Your task to perform on an android device: allow cookies in the chrome app Image 0: 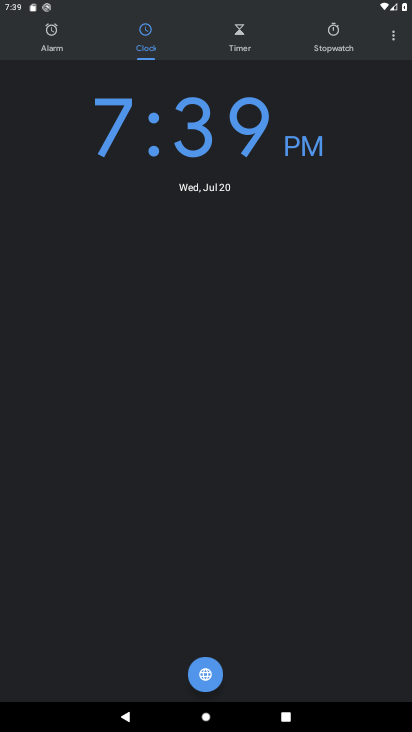
Step 0: press home button
Your task to perform on an android device: allow cookies in the chrome app Image 1: 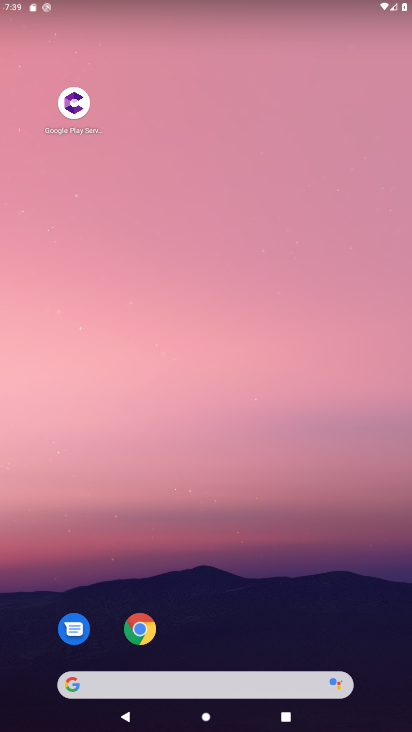
Step 1: click (147, 638)
Your task to perform on an android device: allow cookies in the chrome app Image 2: 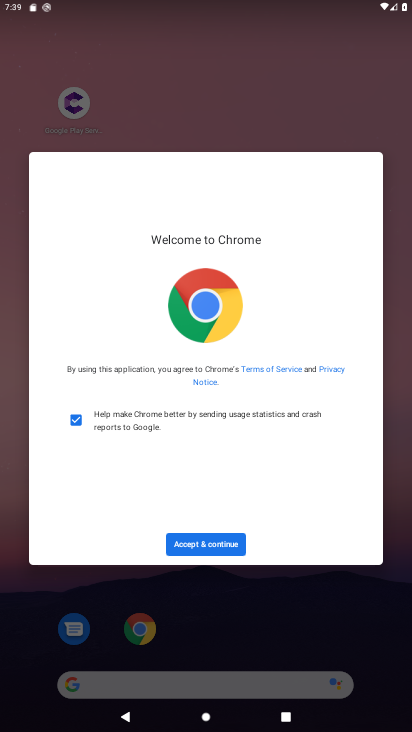
Step 2: click (222, 545)
Your task to perform on an android device: allow cookies in the chrome app Image 3: 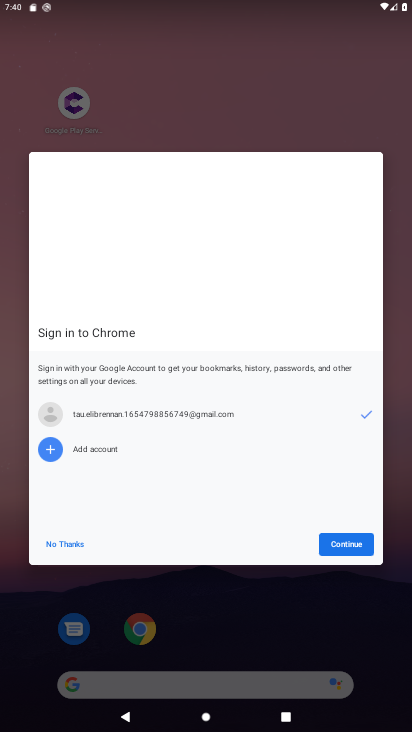
Step 3: click (327, 548)
Your task to perform on an android device: allow cookies in the chrome app Image 4: 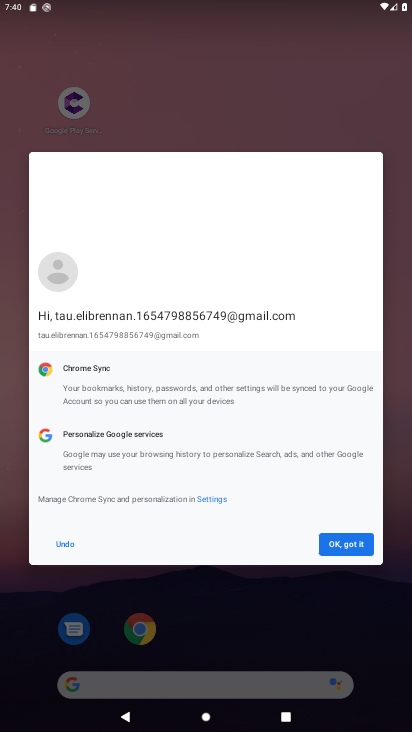
Step 4: click (351, 542)
Your task to perform on an android device: allow cookies in the chrome app Image 5: 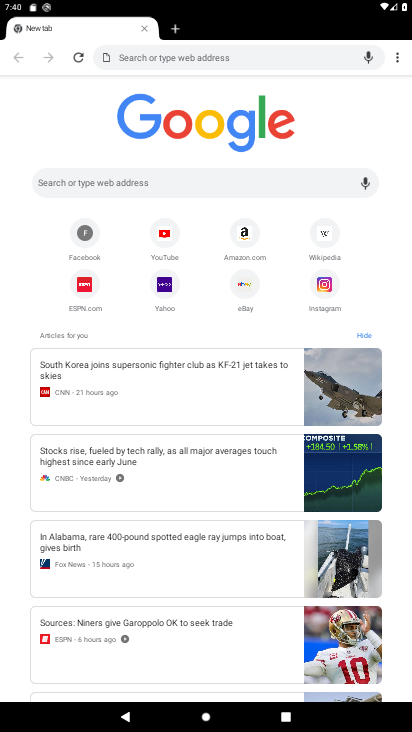
Step 5: click (405, 56)
Your task to perform on an android device: allow cookies in the chrome app Image 6: 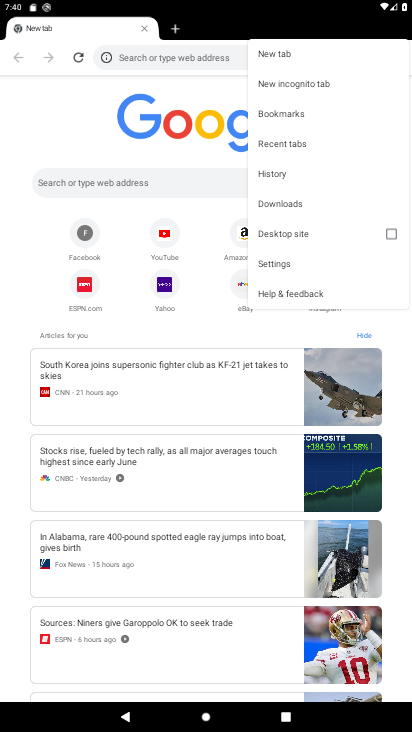
Step 6: click (288, 260)
Your task to perform on an android device: allow cookies in the chrome app Image 7: 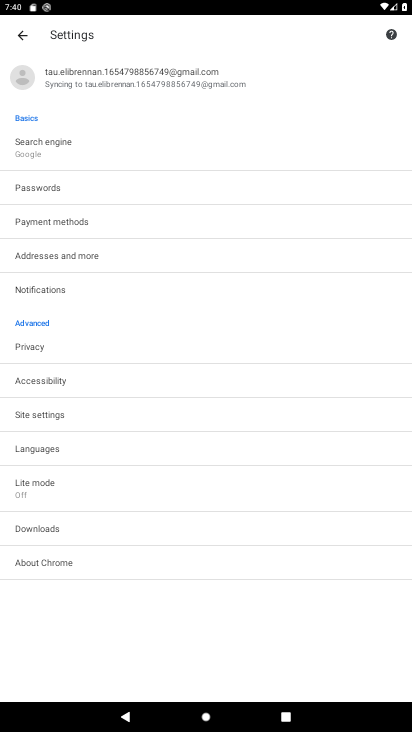
Step 7: click (60, 421)
Your task to perform on an android device: allow cookies in the chrome app Image 8: 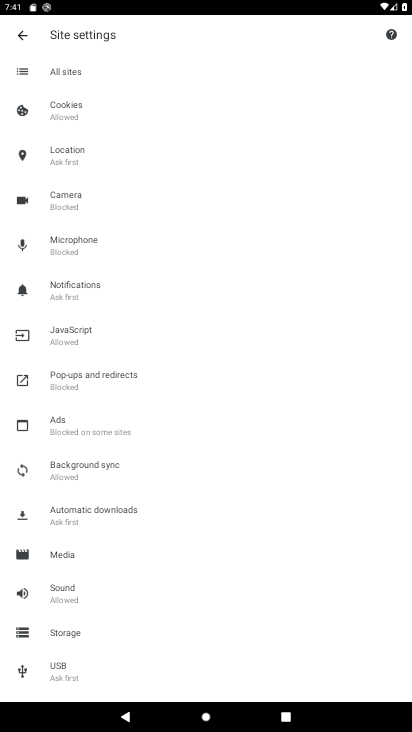
Step 8: click (95, 107)
Your task to perform on an android device: allow cookies in the chrome app Image 9: 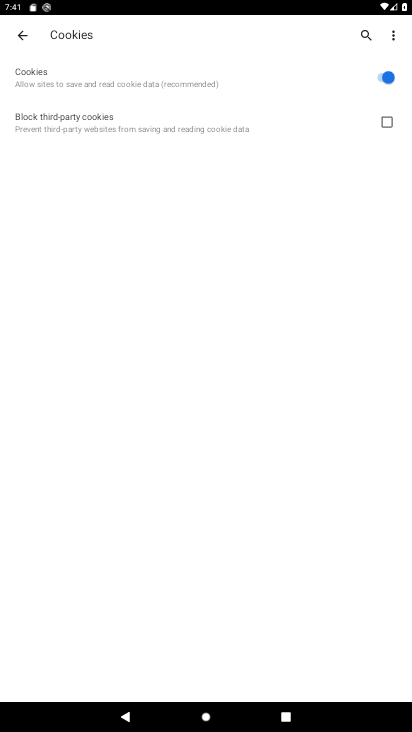
Step 9: task complete